Your task to perform on an android device: Search for Mexican restaurants on Maps Image 0: 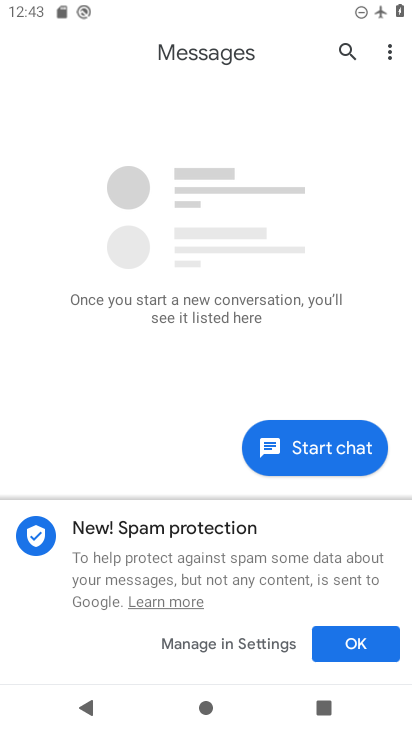
Step 0: press home button
Your task to perform on an android device: Search for Mexican restaurants on Maps Image 1: 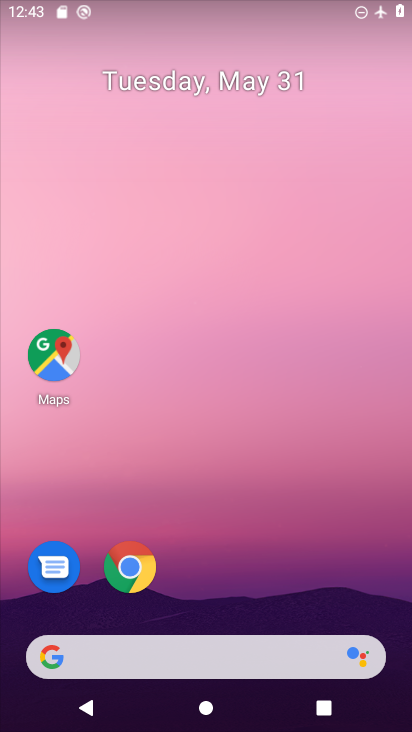
Step 1: click (53, 351)
Your task to perform on an android device: Search for Mexican restaurants on Maps Image 2: 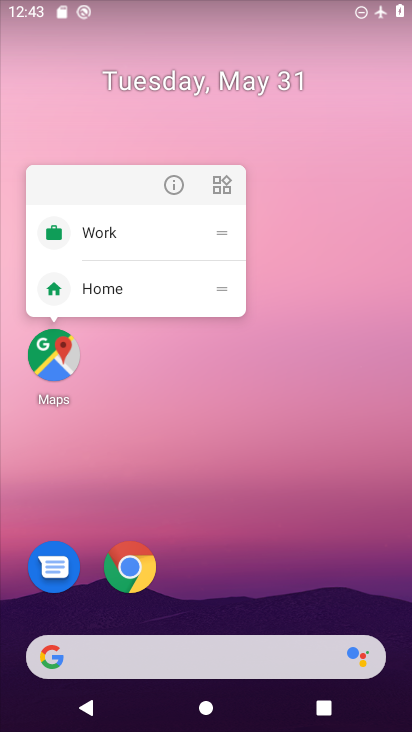
Step 2: click (74, 359)
Your task to perform on an android device: Search for Mexican restaurants on Maps Image 3: 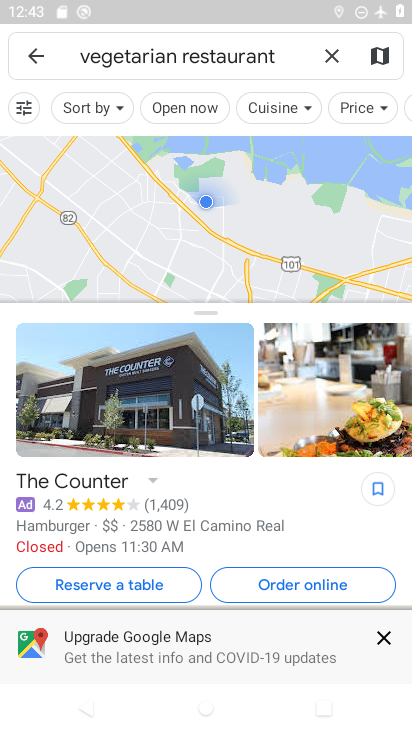
Step 3: click (328, 51)
Your task to perform on an android device: Search for Mexican restaurants on Maps Image 4: 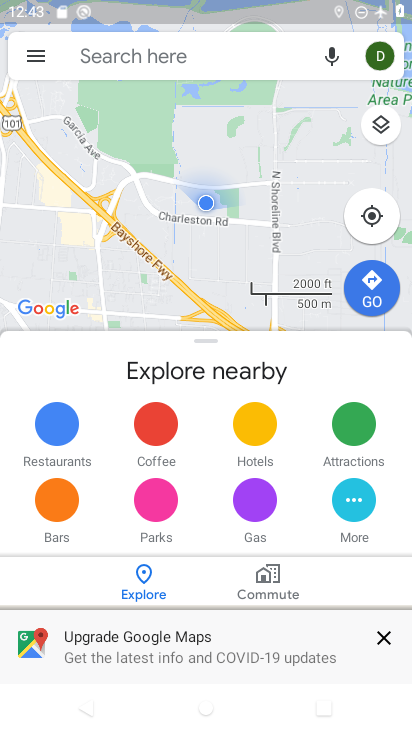
Step 4: click (179, 54)
Your task to perform on an android device: Search for Mexican restaurants on Maps Image 5: 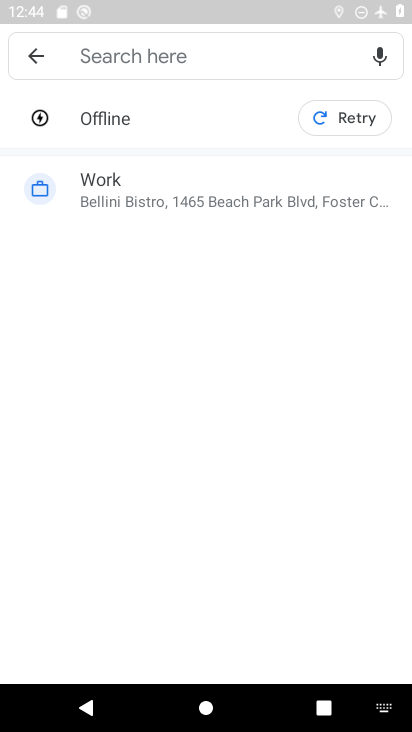
Step 5: type "Mexican restaurants"
Your task to perform on an android device: Search for Mexican restaurants on Maps Image 6: 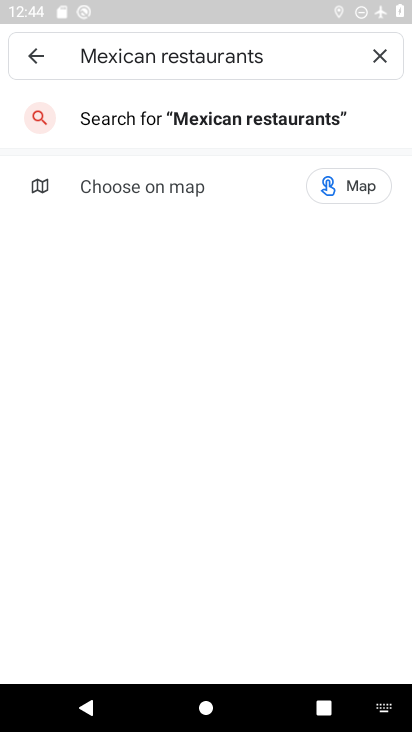
Step 6: click (203, 115)
Your task to perform on an android device: Search for Mexican restaurants on Maps Image 7: 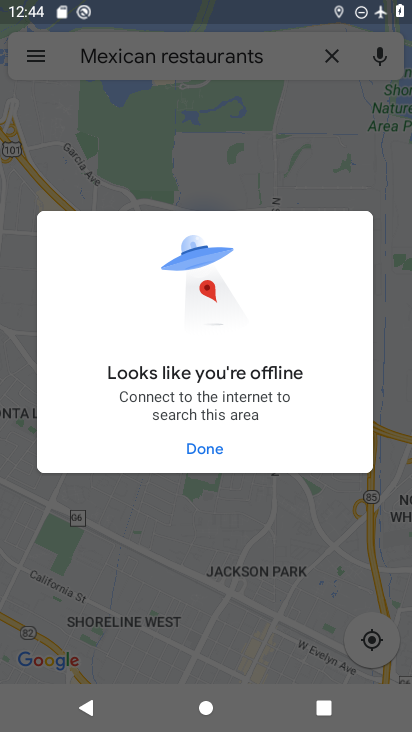
Step 7: task complete